Your task to perform on an android device: open chrome privacy settings Image 0: 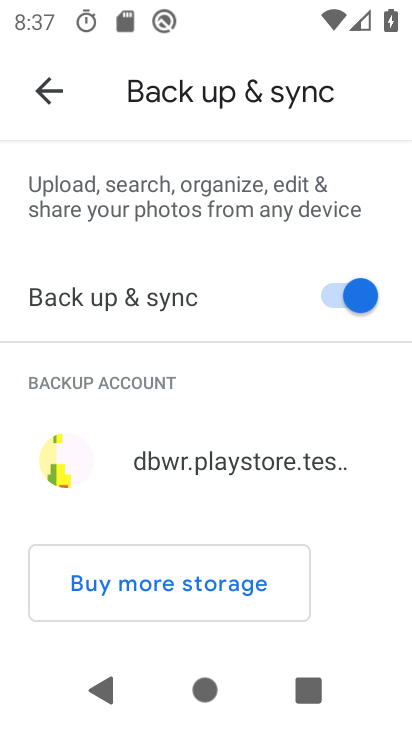
Step 0: press home button
Your task to perform on an android device: open chrome privacy settings Image 1: 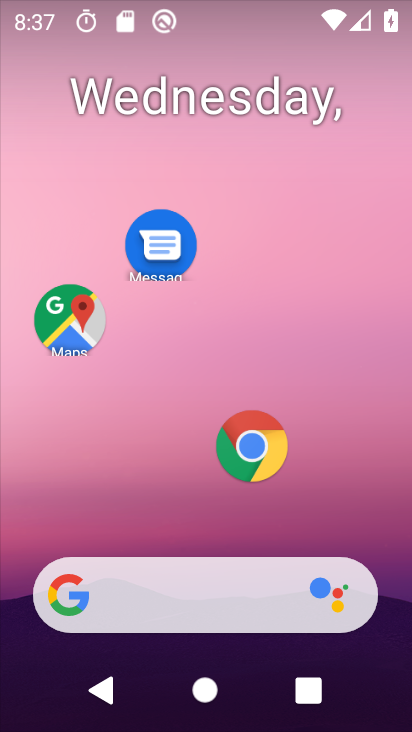
Step 1: click (250, 441)
Your task to perform on an android device: open chrome privacy settings Image 2: 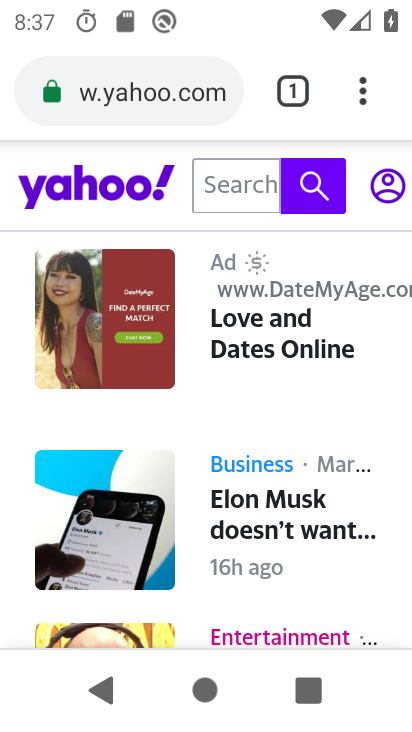
Step 2: click (363, 89)
Your task to perform on an android device: open chrome privacy settings Image 3: 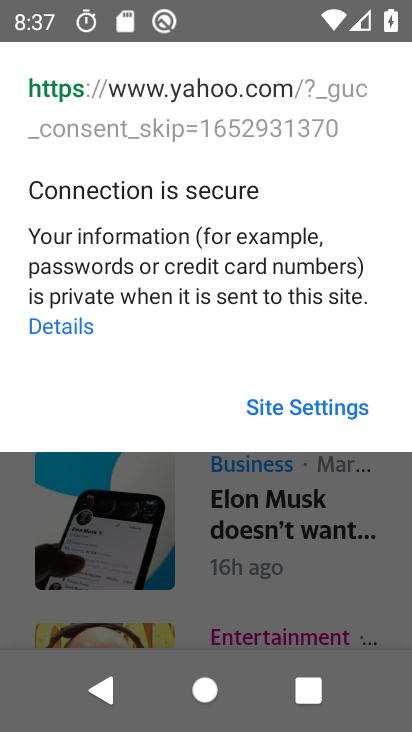
Step 3: click (221, 513)
Your task to perform on an android device: open chrome privacy settings Image 4: 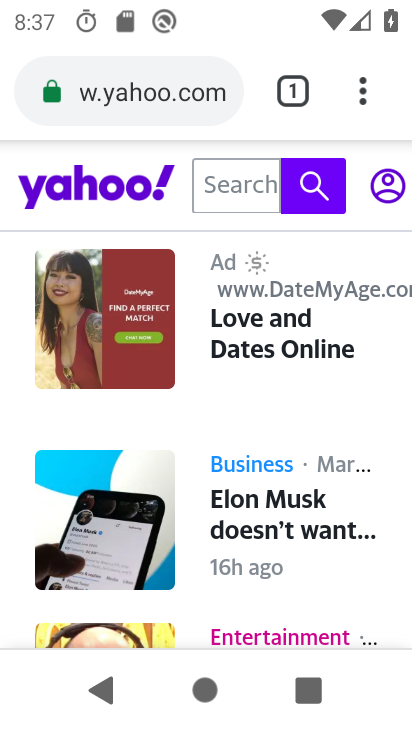
Step 4: click (363, 90)
Your task to perform on an android device: open chrome privacy settings Image 5: 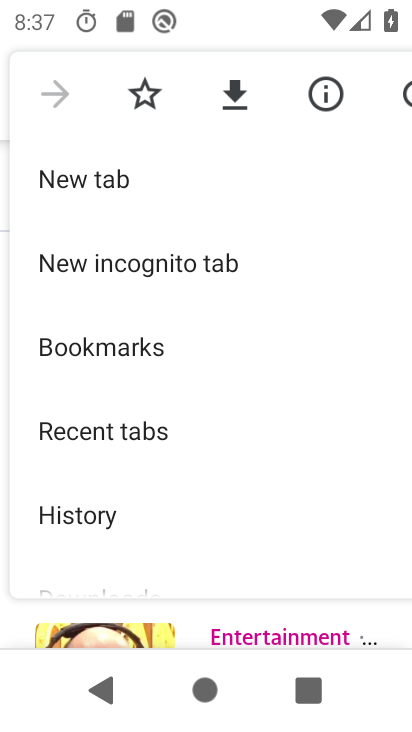
Step 5: drag from (139, 523) to (160, 121)
Your task to perform on an android device: open chrome privacy settings Image 6: 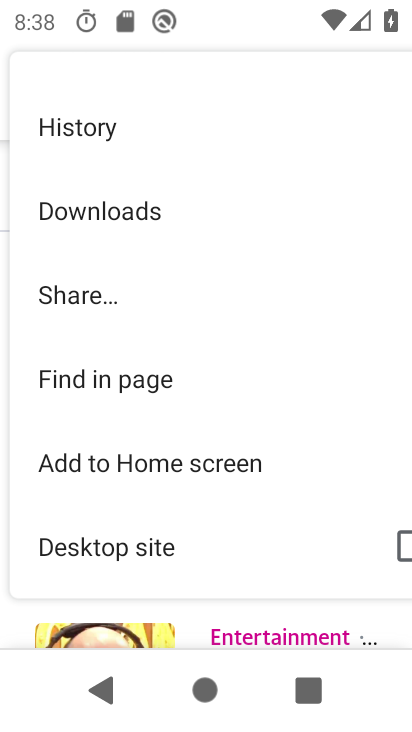
Step 6: drag from (235, 526) to (231, 30)
Your task to perform on an android device: open chrome privacy settings Image 7: 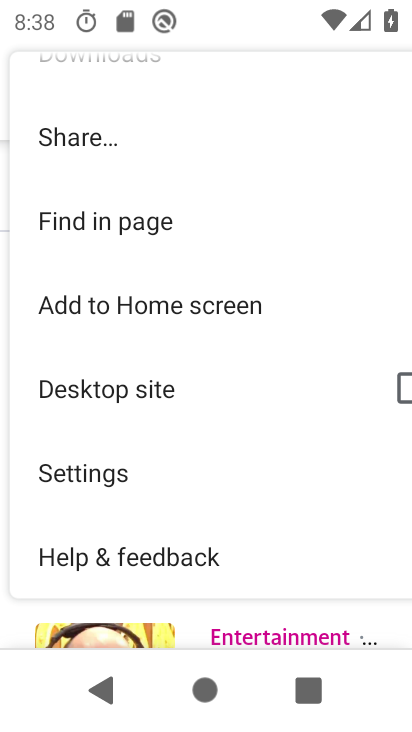
Step 7: click (144, 470)
Your task to perform on an android device: open chrome privacy settings Image 8: 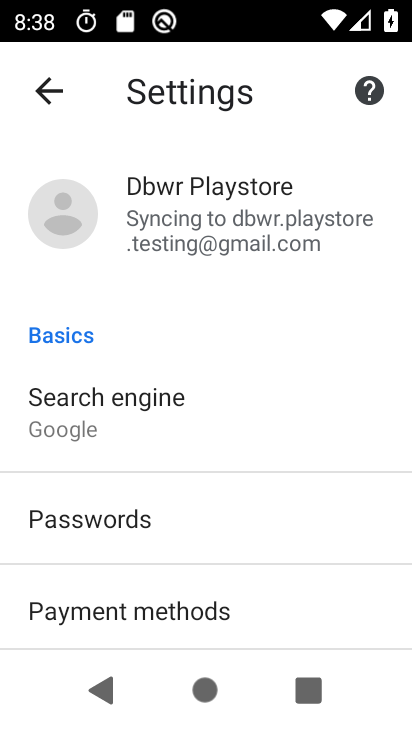
Step 8: drag from (242, 603) to (231, 141)
Your task to perform on an android device: open chrome privacy settings Image 9: 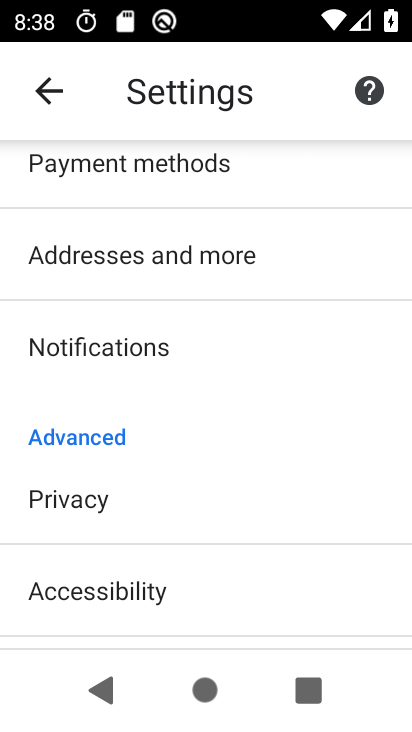
Step 9: click (123, 495)
Your task to perform on an android device: open chrome privacy settings Image 10: 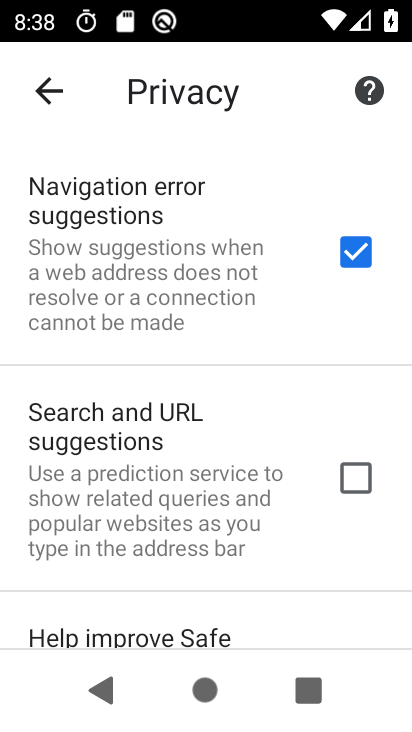
Step 10: task complete